Your task to perform on an android device: Open Youtube and go to "Your channel" Image 0: 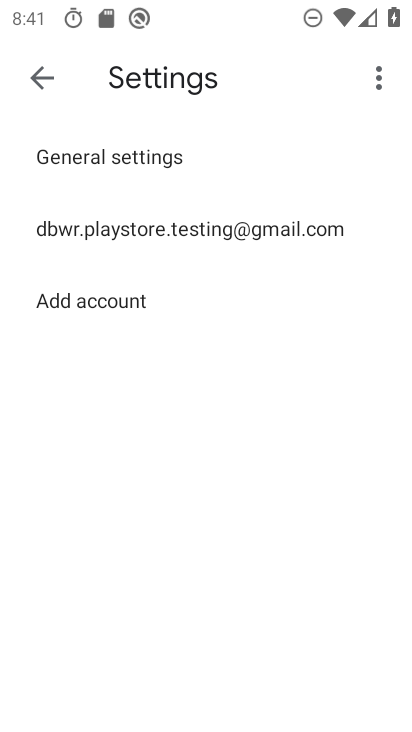
Step 0: press home button
Your task to perform on an android device: Open Youtube and go to "Your channel" Image 1: 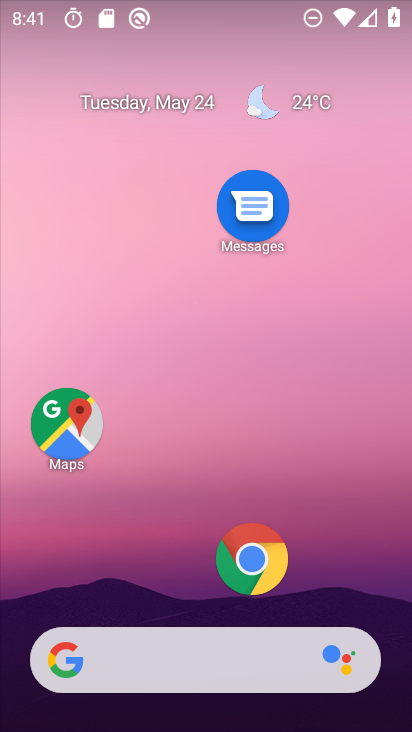
Step 1: drag from (162, 555) to (174, 198)
Your task to perform on an android device: Open Youtube and go to "Your channel" Image 2: 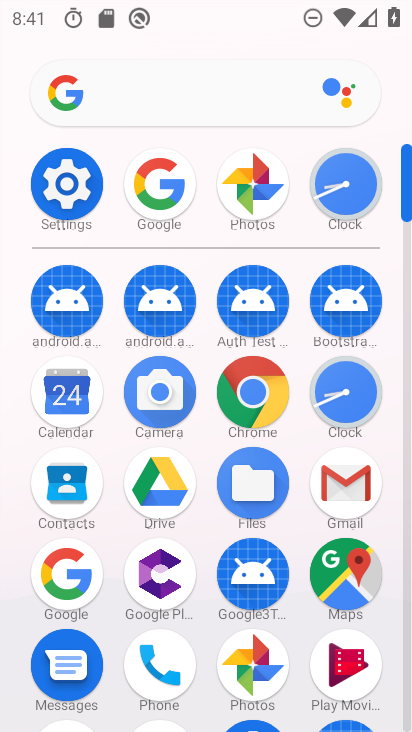
Step 2: drag from (326, 617) to (292, 248)
Your task to perform on an android device: Open Youtube and go to "Your channel" Image 3: 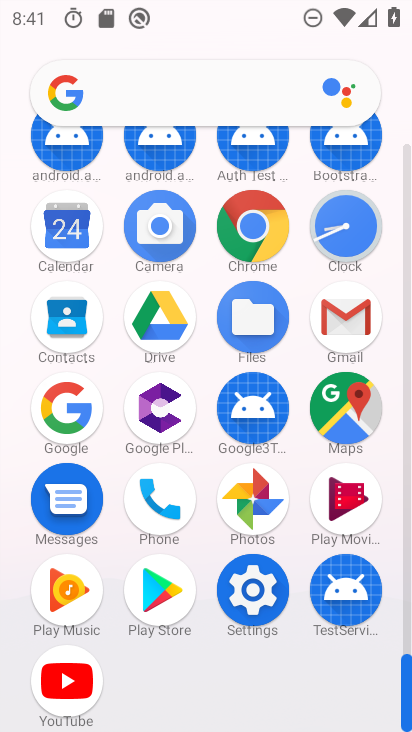
Step 3: click (38, 660)
Your task to perform on an android device: Open Youtube and go to "Your channel" Image 4: 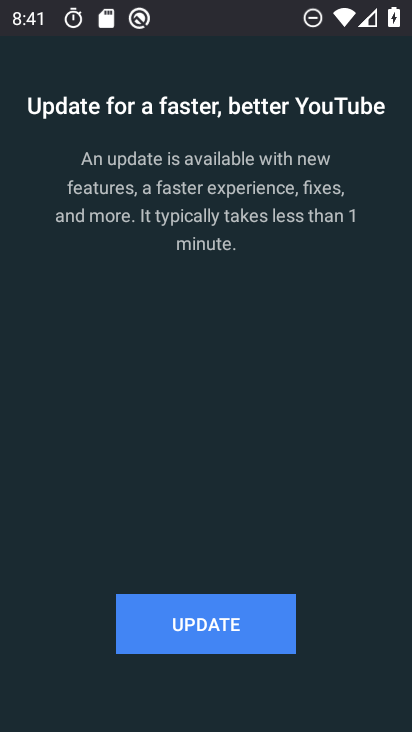
Step 4: click (255, 611)
Your task to perform on an android device: Open Youtube and go to "Your channel" Image 5: 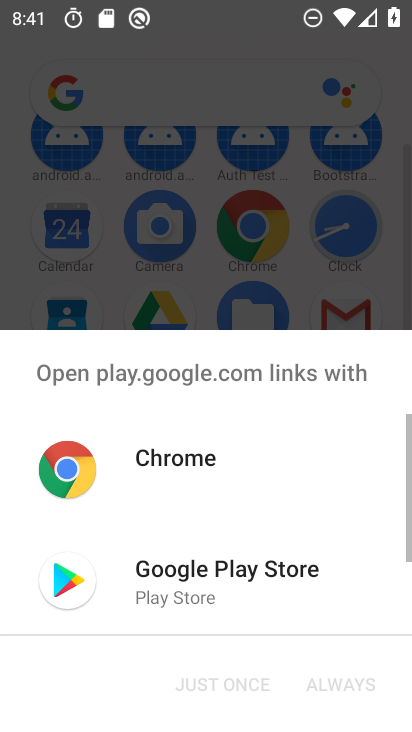
Step 5: click (202, 580)
Your task to perform on an android device: Open Youtube and go to "Your channel" Image 6: 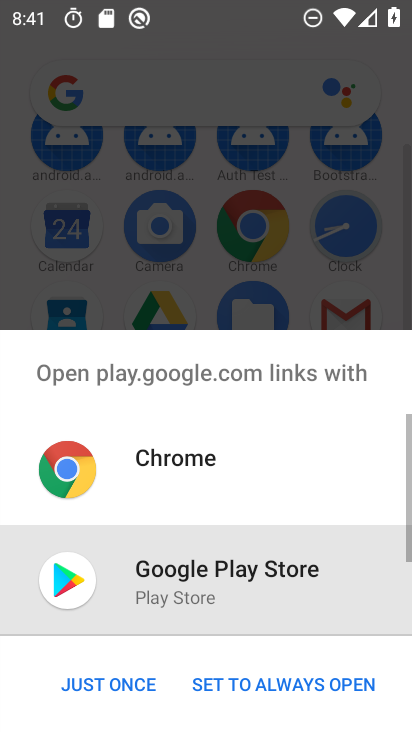
Step 6: click (122, 681)
Your task to perform on an android device: Open Youtube and go to "Your channel" Image 7: 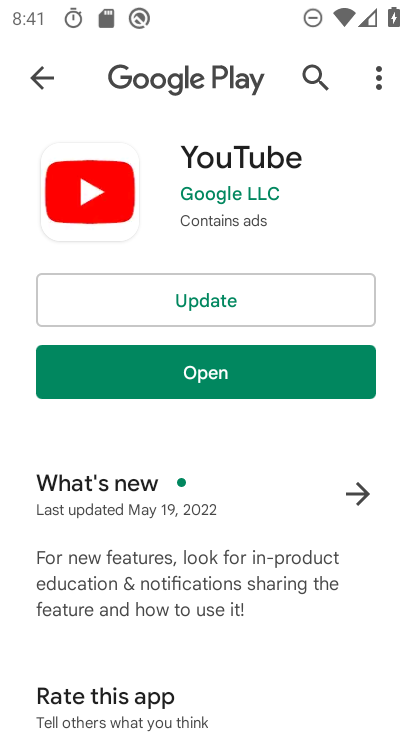
Step 7: click (190, 286)
Your task to perform on an android device: Open Youtube and go to "Your channel" Image 8: 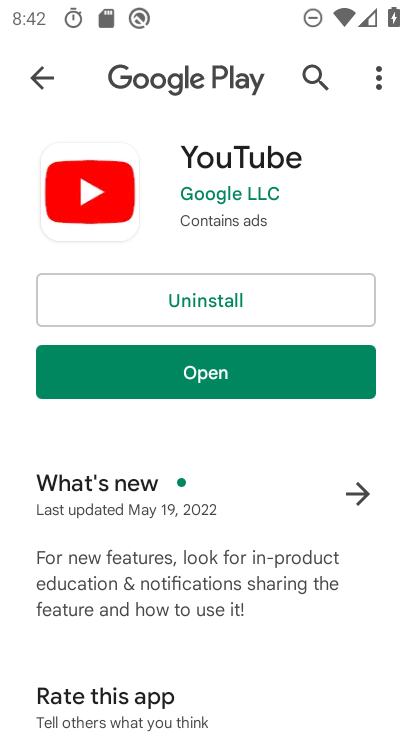
Step 8: click (223, 360)
Your task to perform on an android device: Open Youtube and go to "Your channel" Image 9: 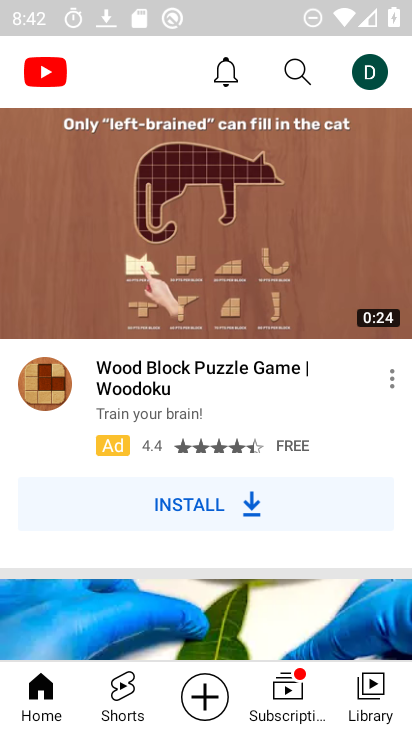
Step 9: click (387, 64)
Your task to perform on an android device: Open Youtube and go to "Your channel" Image 10: 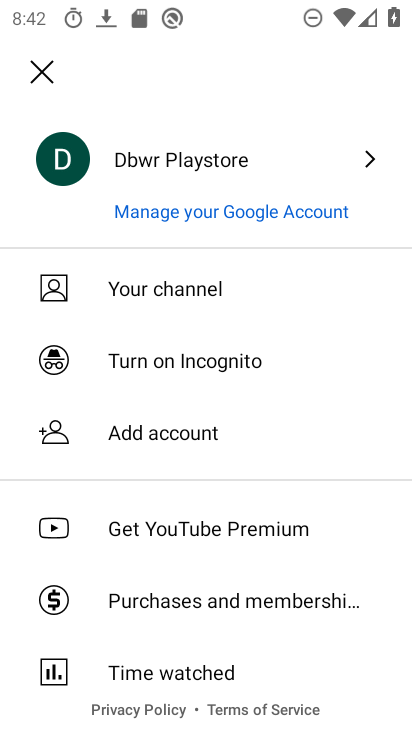
Step 10: click (181, 283)
Your task to perform on an android device: Open Youtube and go to "Your channel" Image 11: 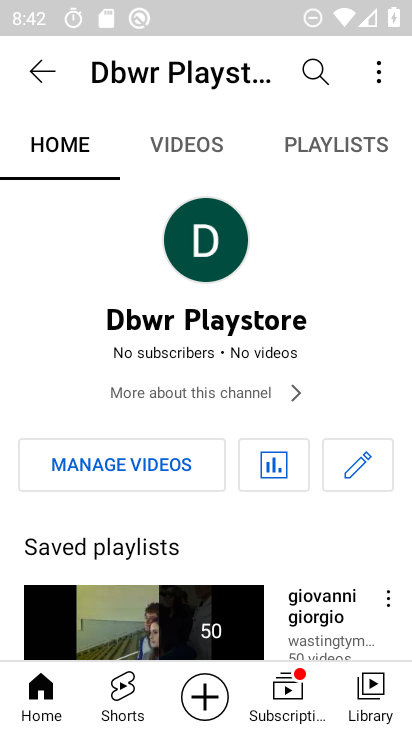
Step 11: task complete